Your task to perform on an android device: change alarm snooze length Image 0: 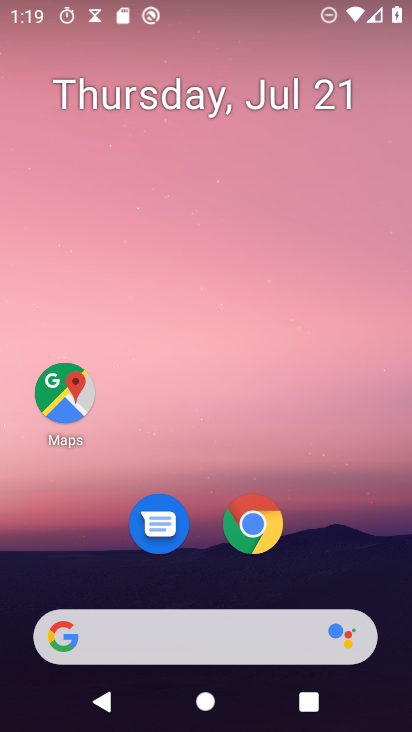
Step 0: drag from (205, 645) to (224, 77)
Your task to perform on an android device: change alarm snooze length Image 1: 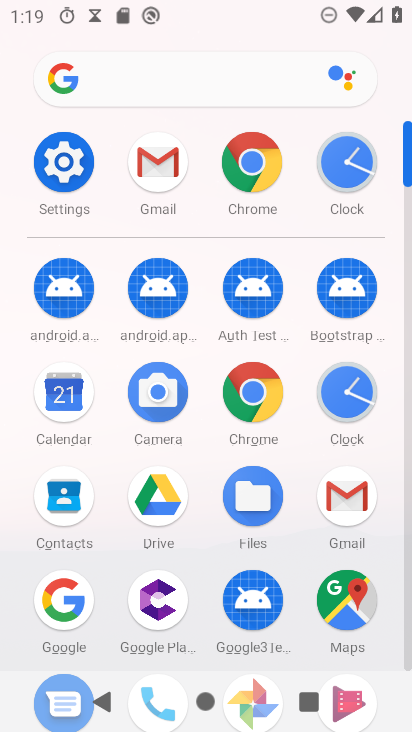
Step 1: click (346, 178)
Your task to perform on an android device: change alarm snooze length Image 2: 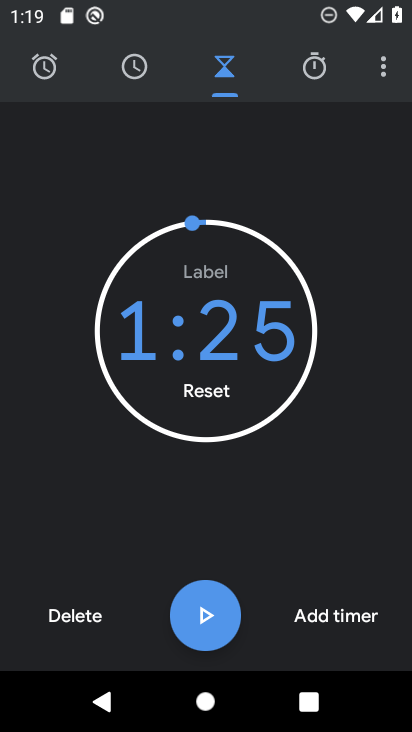
Step 2: click (384, 77)
Your task to perform on an android device: change alarm snooze length Image 3: 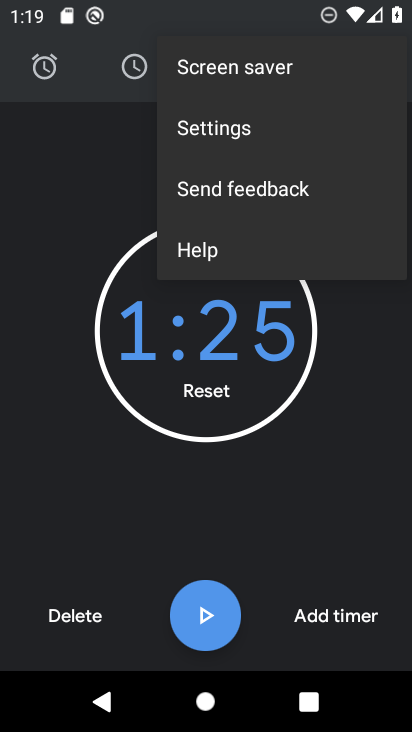
Step 3: click (208, 132)
Your task to perform on an android device: change alarm snooze length Image 4: 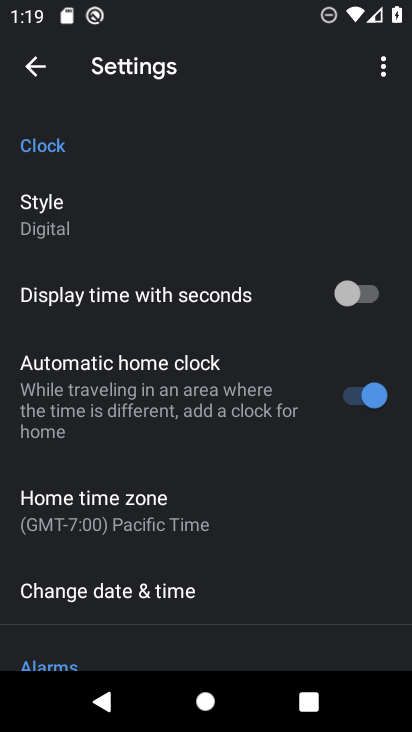
Step 4: drag from (225, 547) to (323, 115)
Your task to perform on an android device: change alarm snooze length Image 5: 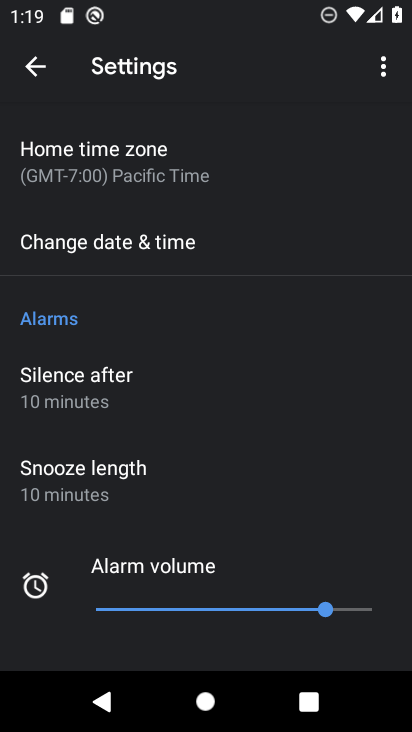
Step 5: click (112, 490)
Your task to perform on an android device: change alarm snooze length Image 6: 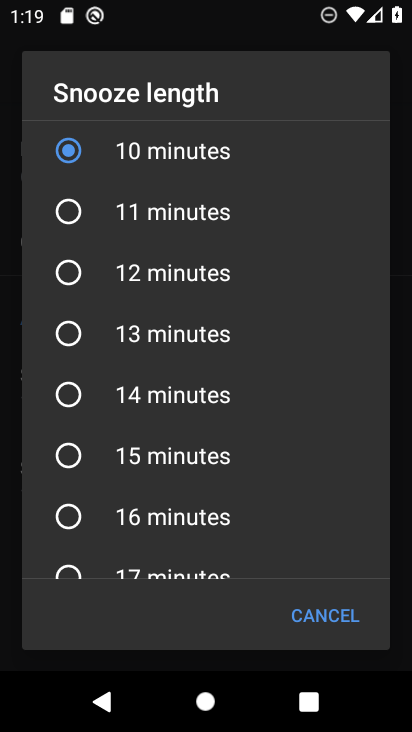
Step 6: click (69, 456)
Your task to perform on an android device: change alarm snooze length Image 7: 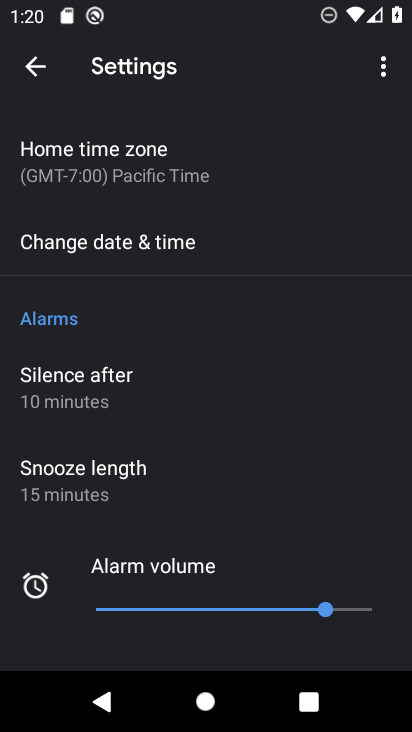
Step 7: task complete